Your task to perform on an android device: Do I have any events today? Image 0: 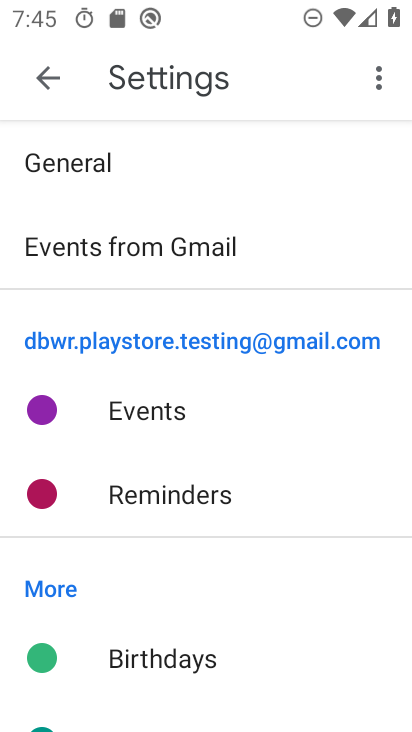
Step 0: press home button
Your task to perform on an android device: Do I have any events today? Image 1: 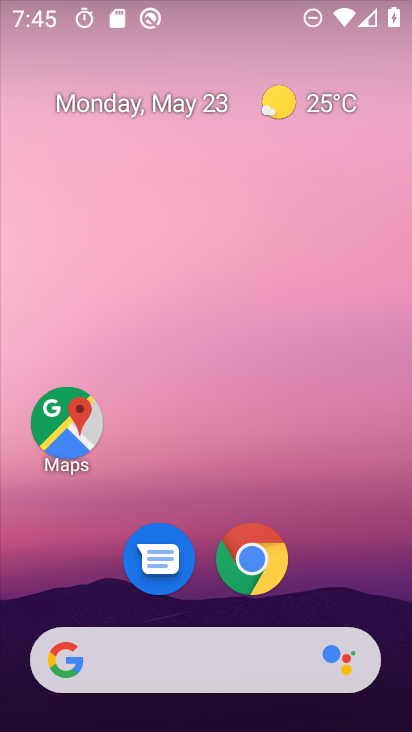
Step 1: drag from (396, 627) to (297, 30)
Your task to perform on an android device: Do I have any events today? Image 2: 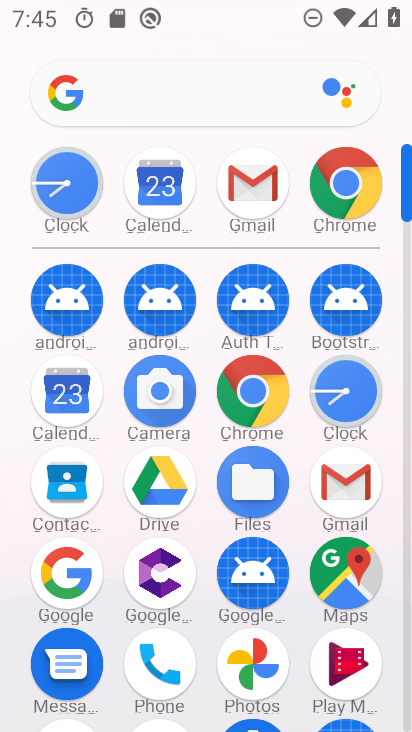
Step 2: click (53, 394)
Your task to perform on an android device: Do I have any events today? Image 3: 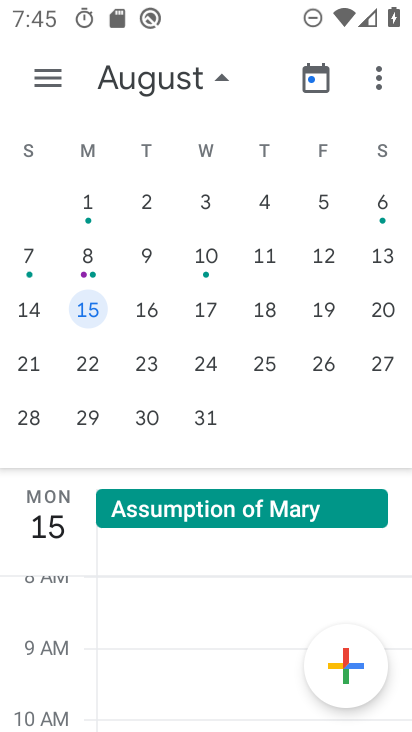
Step 3: drag from (62, 254) to (410, 280)
Your task to perform on an android device: Do I have any events today? Image 4: 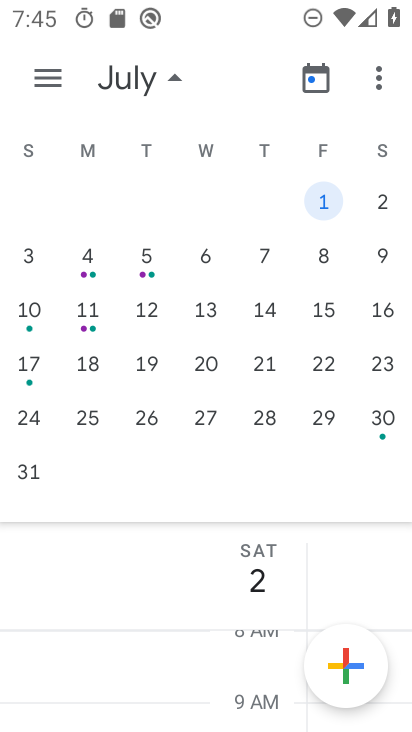
Step 4: drag from (37, 237) to (311, 256)
Your task to perform on an android device: Do I have any events today? Image 5: 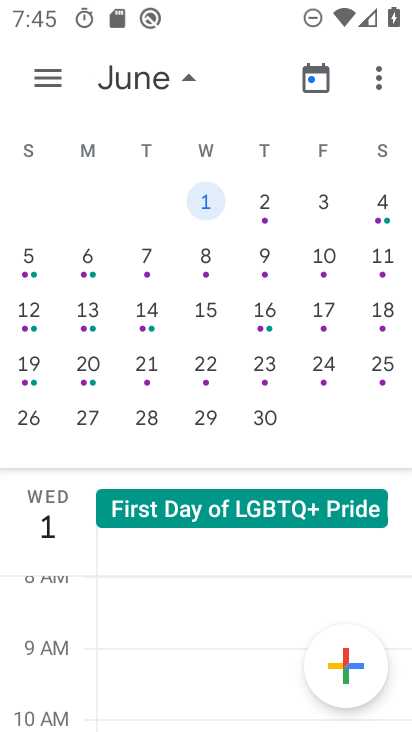
Step 5: drag from (90, 314) to (400, 339)
Your task to perform on an android device: Do I have any events today? Image 6: 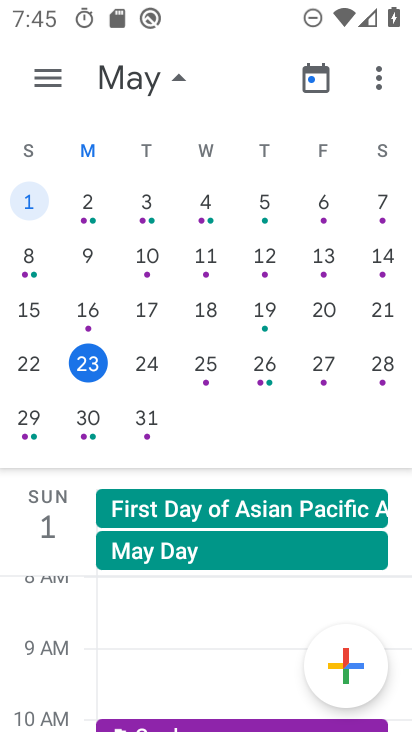
Step 6: click (143, 366)
Your task to perform on an android device: Do I have any events today? Image 7: 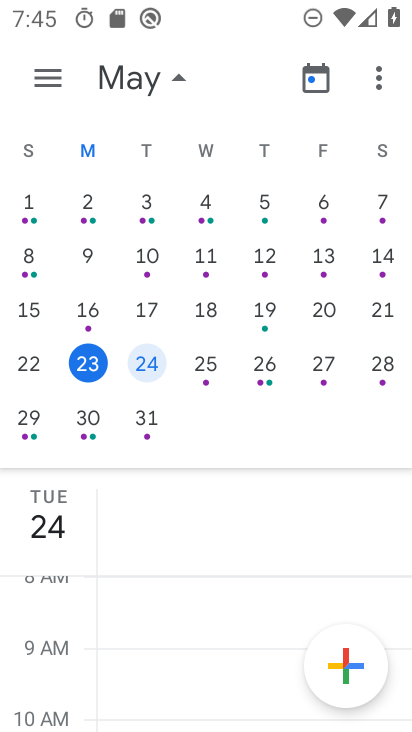
Step 7: task complete